Your task to perform on an android device: Open calendar and show me the second week of next month Image 0: 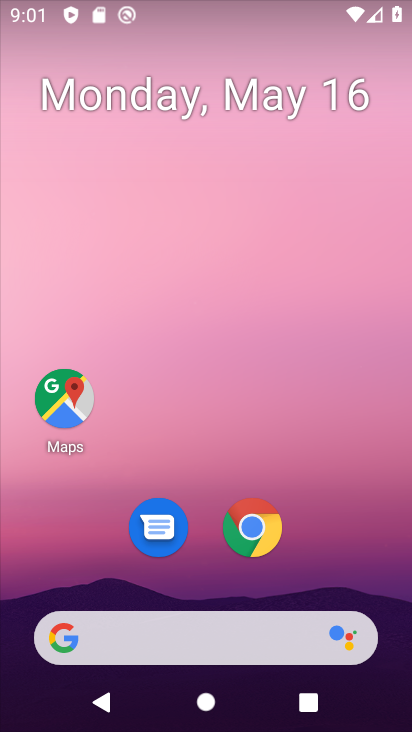
Step 0: click (359, 564)
Your task to perform on an android device: Open calendar and show me the second week of next month Image 1: 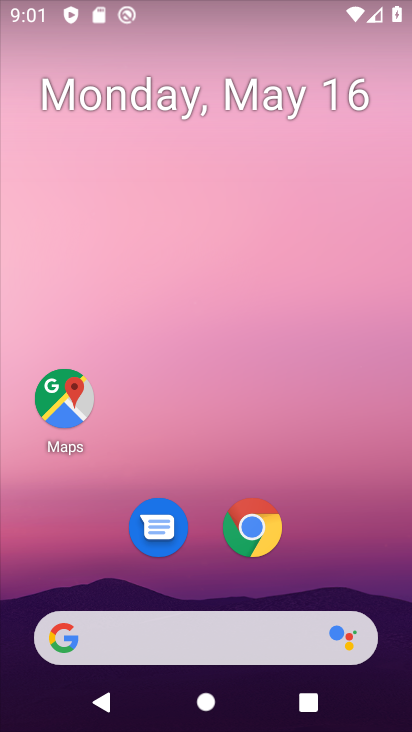
Step 1: drag from (359, 589) to (218, 12)
Your task to perform on an android device: Open calendar and show me the second week of next month Image 2: 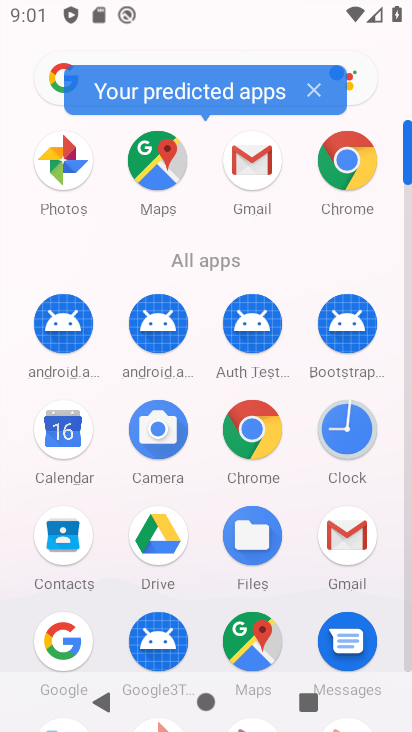
Step 2: click (40, 441)
Your task to perform on an android device: Open calendar and show me the second week of next month Image 3: 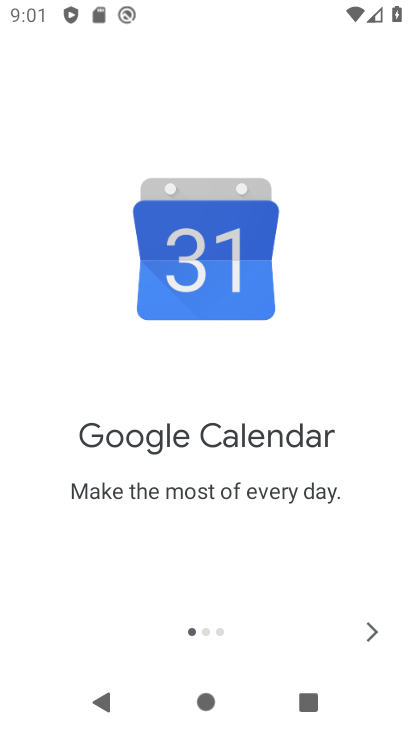
Step 3: click (358, 636)
Your task to perform on an android device: Open calendar and show me the second week of next month Image 4: 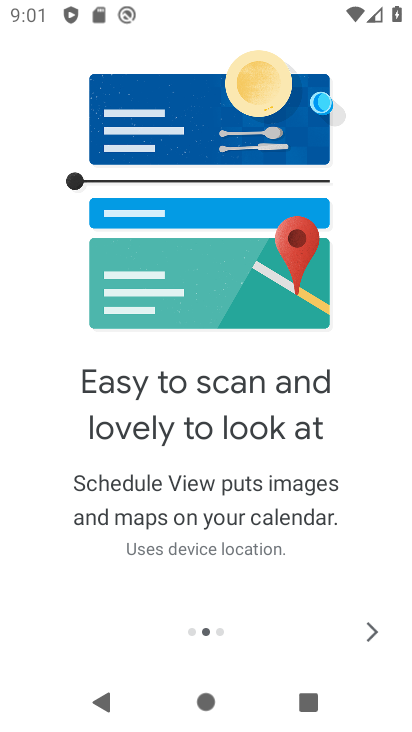
Step 4: click (358, 636)
Your task to perform on an android device: Open calendar and show me the second week of next month Image 5: 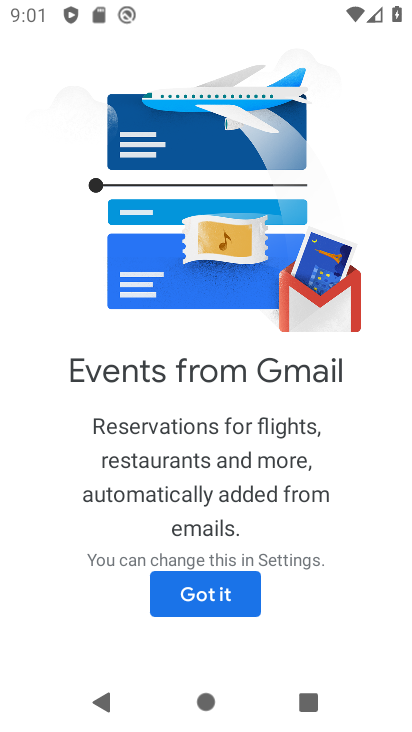
Step 5: click (190, 591)
Your task to perform on an android device: Open calendar and show me the second week of next month Image 6: 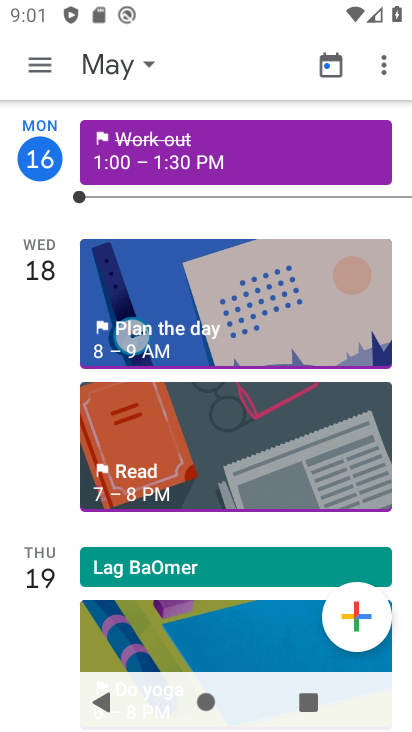
Step 6: click (146, 71)
Your task to perform on an android device: Open calendar and show me the second week of next month Image 7: 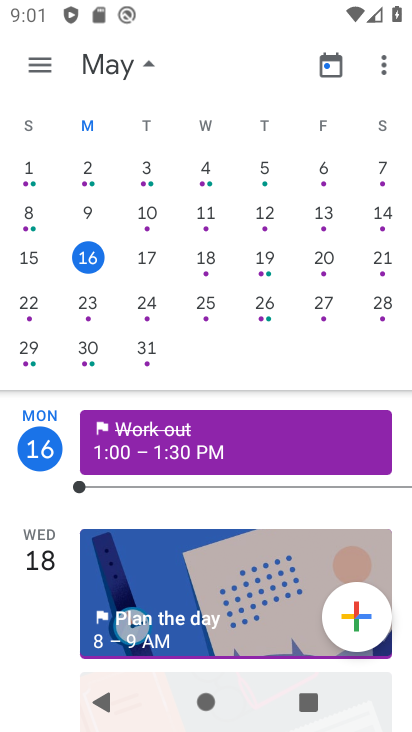
Step 7: drag from (324, 249) to (28, 389)
Your task to perform on an android device: Open calendar and show me the second week of next month Image 8: 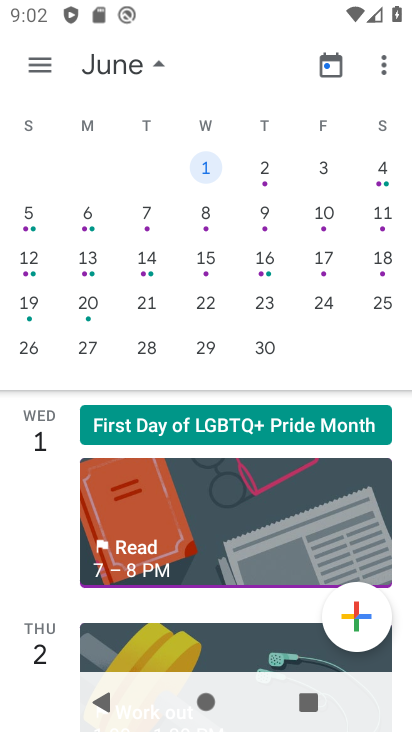
Step 8: click (42, 66)
Your task to perform on an android device: Open calendar and show me the second week of next month Image 9: 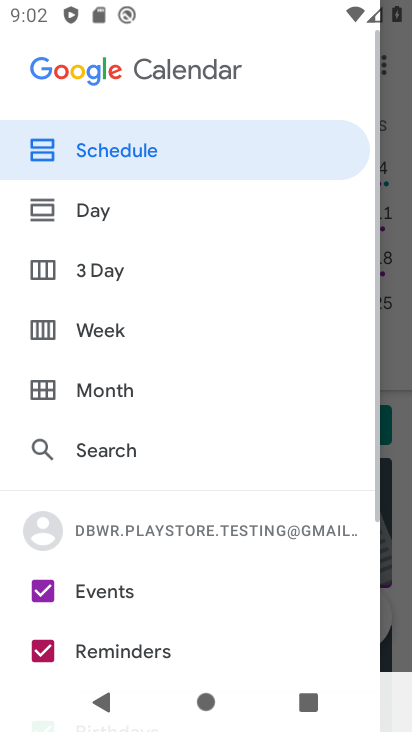
Step 9: click (95, 319)
Your task to perform on an android device: Open calendar and show me the second week of next month Image 10: 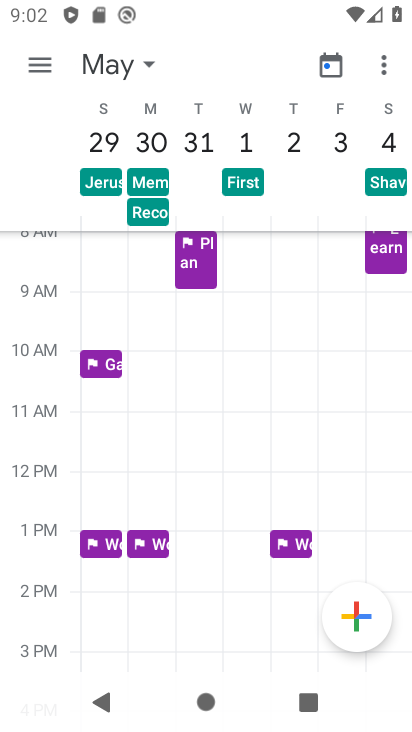
Step 10: task complete